Your task to perform on an android device: Open calendar and show me the second week of next month Image 0: 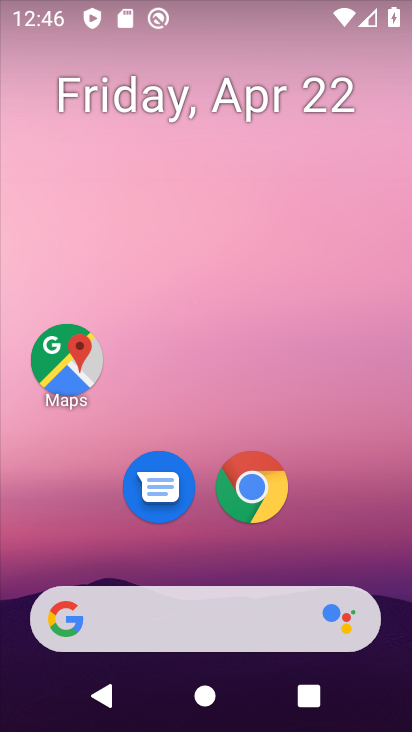
Step 0: drag from (202, 539) to (168, 198)
Your task to perform on an android device: Open calendar and show me the second week of next month Image 1: 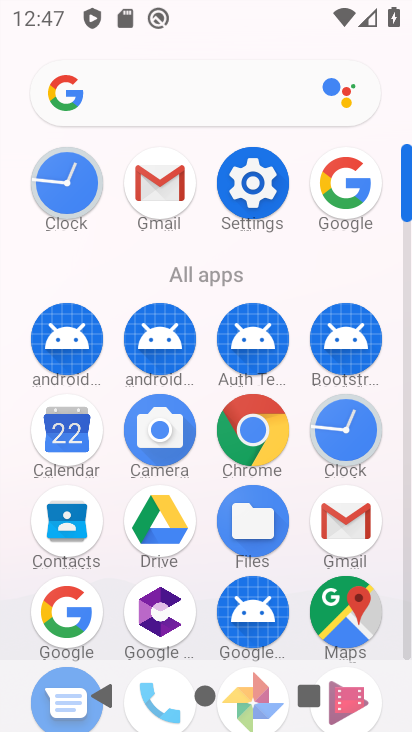
Step 1: drag from (200, 483) to (206, 276)
Your task to perform on an android device: Open calendar and show me the second week of next month Image 2: 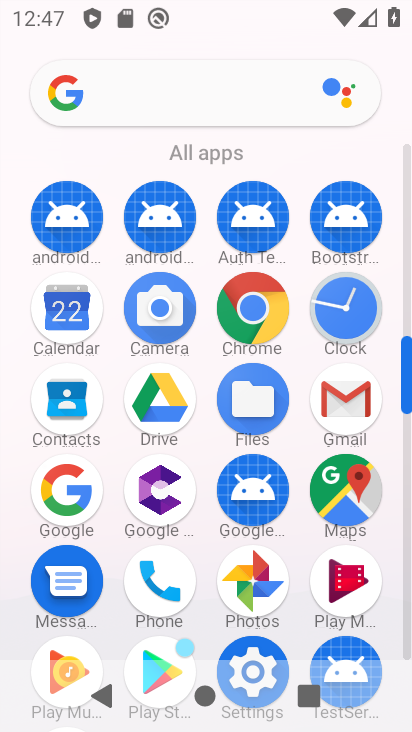
Step 2: click (66, 332)
Your task to perform on an android device: Open calendar and show me the second week of next month Image 3: 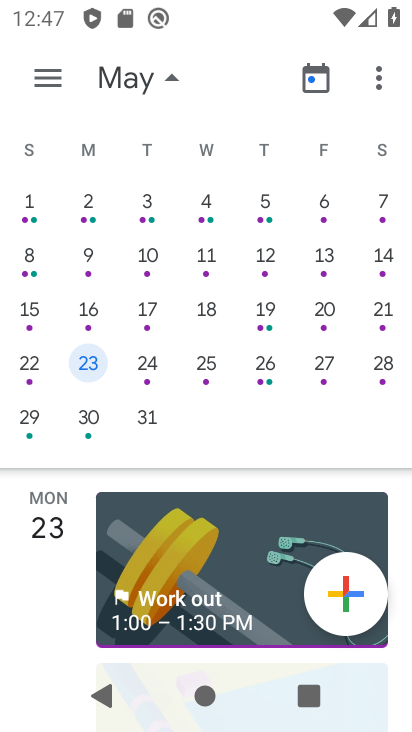
Step 3: click (91, 260)
Your task to perform on an android device: Open calendar and show me the second week of next month Image 4: 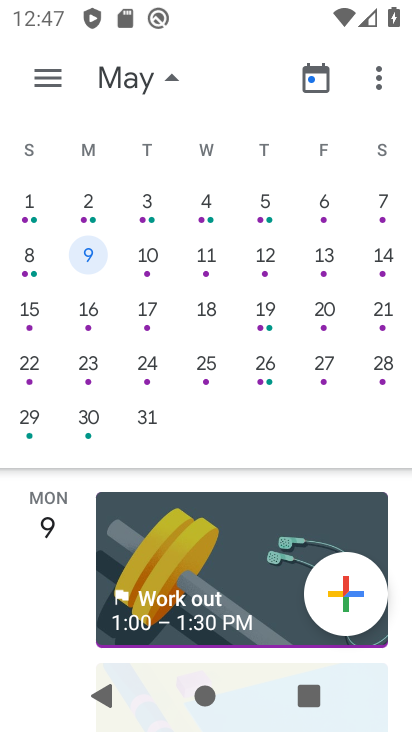
Step 4: task complete